Your task to perform on an android device: turn off location history Image 0: 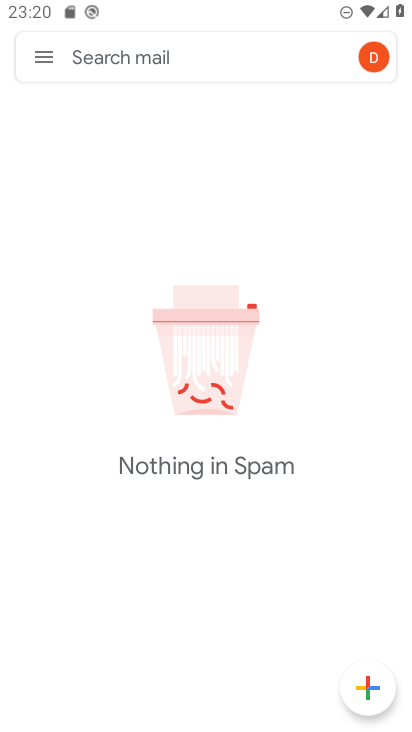
Step 0: press home button
Your task to perform on an android device: turn off location history Image 1: 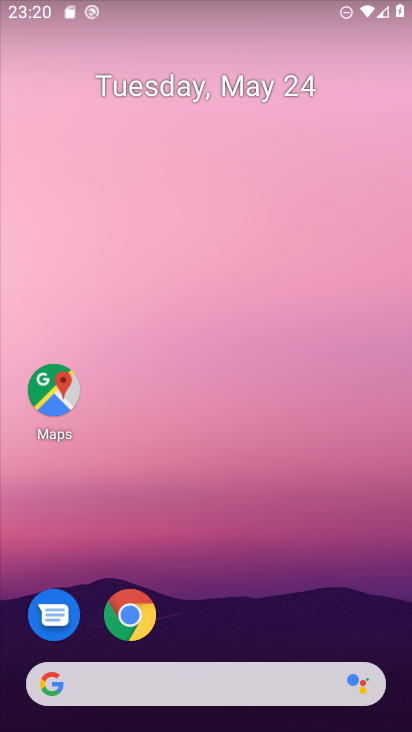
Step 1: drag from (258, 719) to (336, 0)
Your task to perform on an android device: turn off location history Image 2: 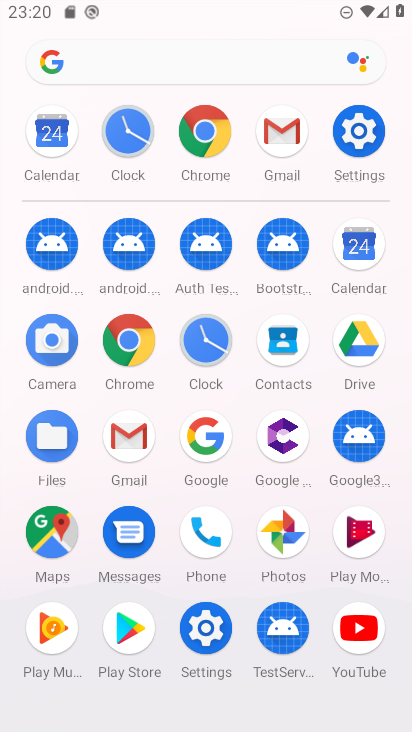
Step 2: click (355, 144)
Your task to perform on an android device: turn off location history Image 3: 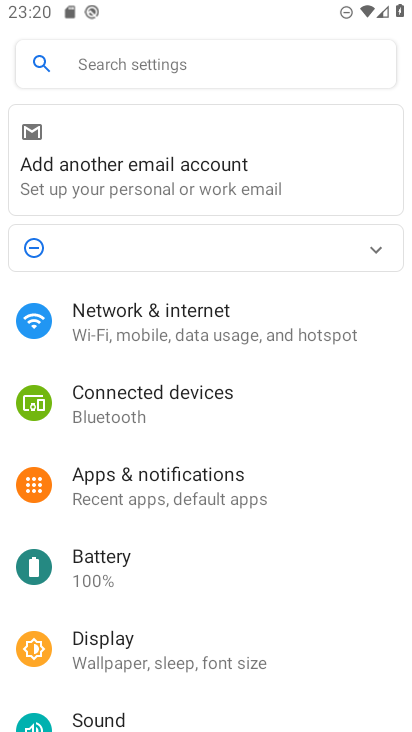
Step 3: click (184, 59)
Your task to perform on an android device: turn off location history Image 4: 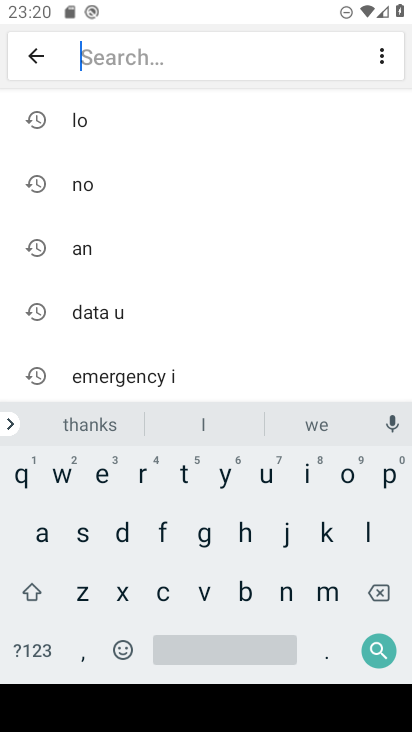
Step 4: click (142, 129)
Your task to perform on an android device: turn off location history Image 5: 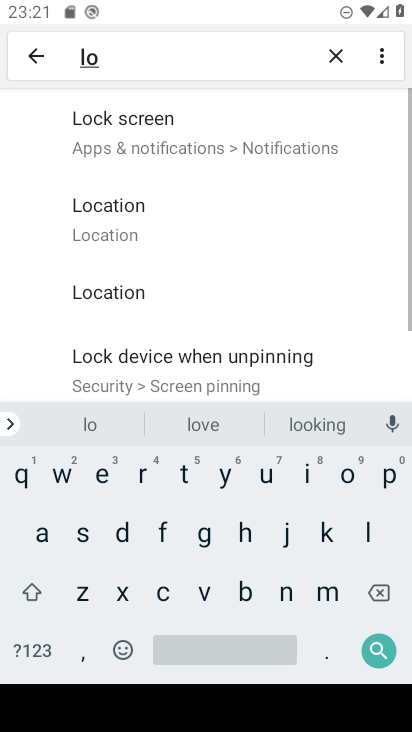
Step 5: click (195, 212)
Your task to perform on an android device: turn off location history Image 6: 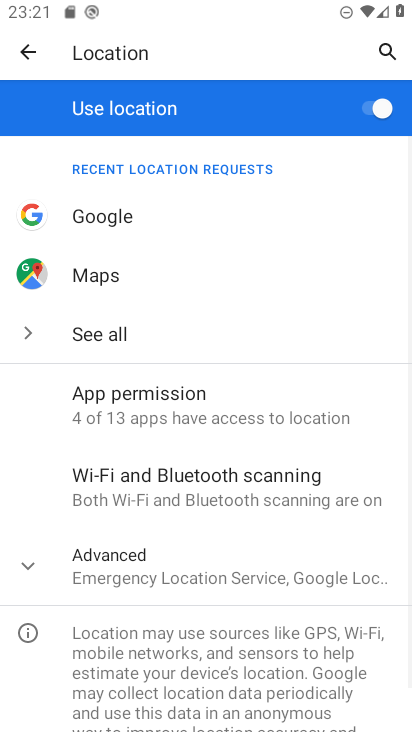
Step 6: click (62, 575)
Your task to perform on an android device: turn off location history Image 7: 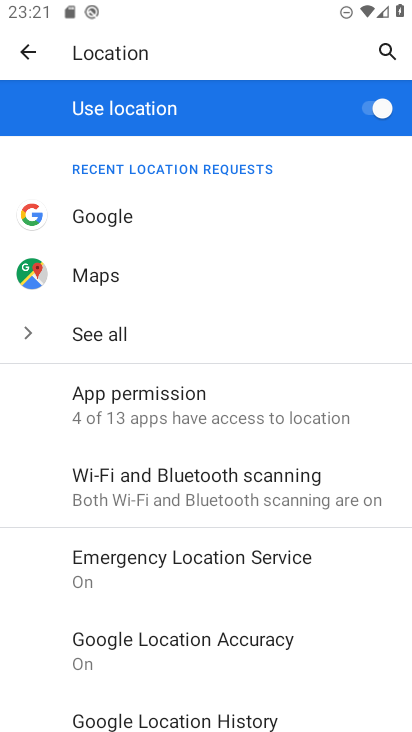
Step 7: drag from (196, 655) to (201, 559)
Your task to perform on an android device: turn off location history Image 8: 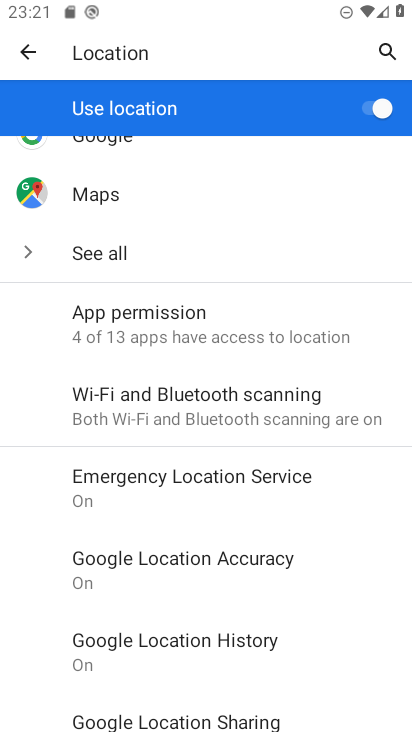
Step 8: click (200, 642)
Your task to perform on an android device: turn off location history Image 9: 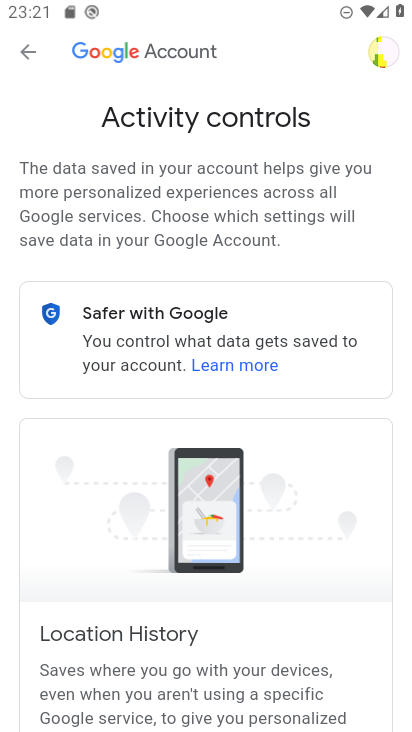
Step 9: task complete